Your task to perform on an android device: change notifications settings Image 0: 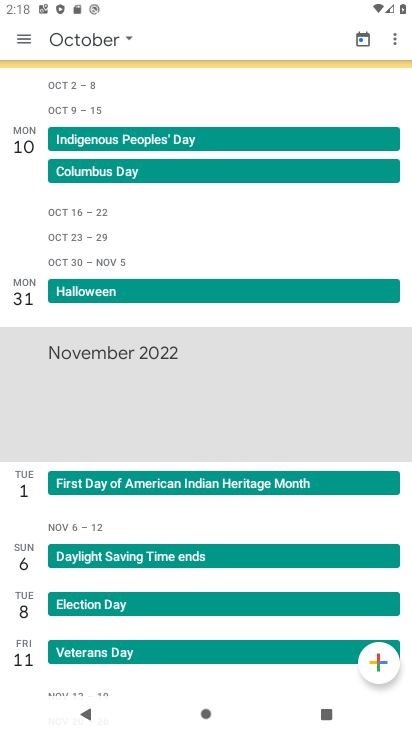
Step 0: press home button
Your task to perform on an android device: change notifications settings Image 1: 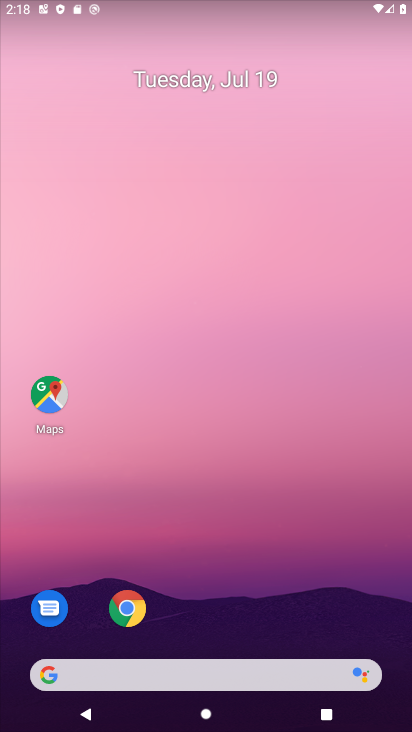
Step 1: click (321, 479)
Your task to perform on an android device: change notifications settings Image 2: 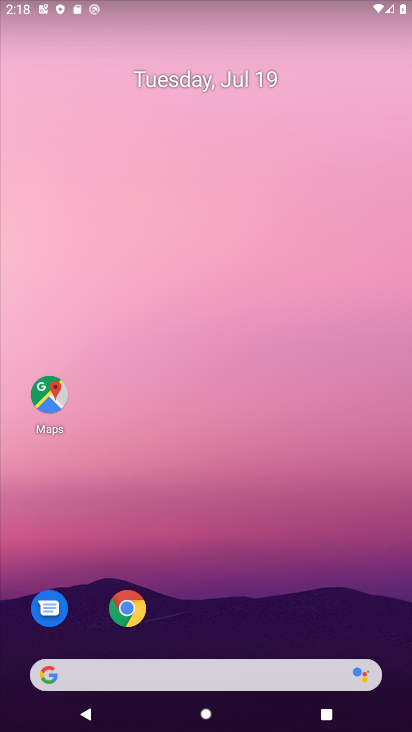
Step 2: drag from (308, 541) to (236, 228)
Your task to perform on an android device: change notifications settings Image 3: 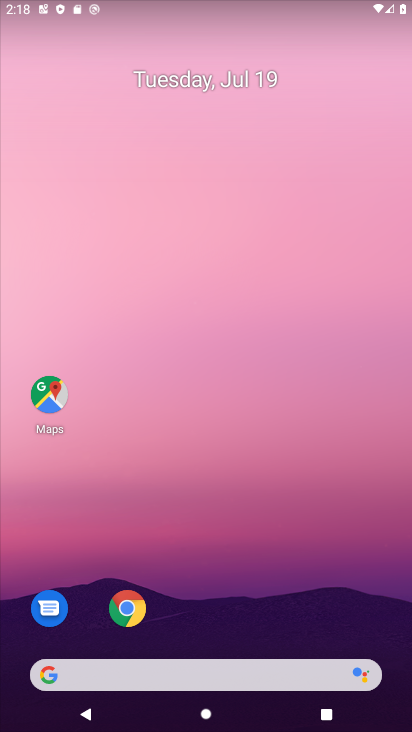
Step 3: drag from (269, 602) to (190, 239)
Your task to perform on an android device: change notifications settings Image 4: 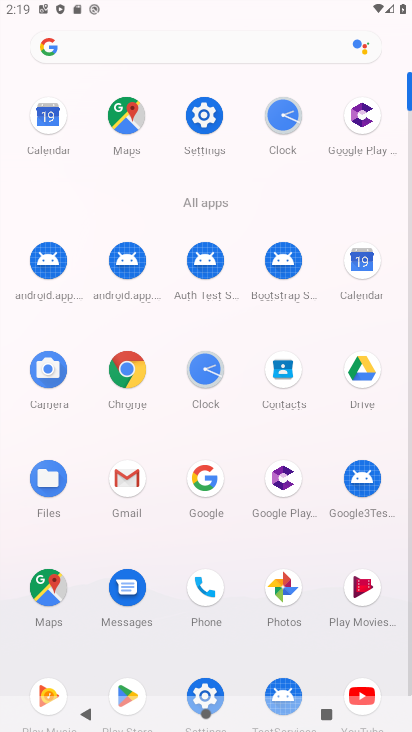
Step 4: click (207, 683)
Your task to perform on an android device: change notifications settings Image 5: 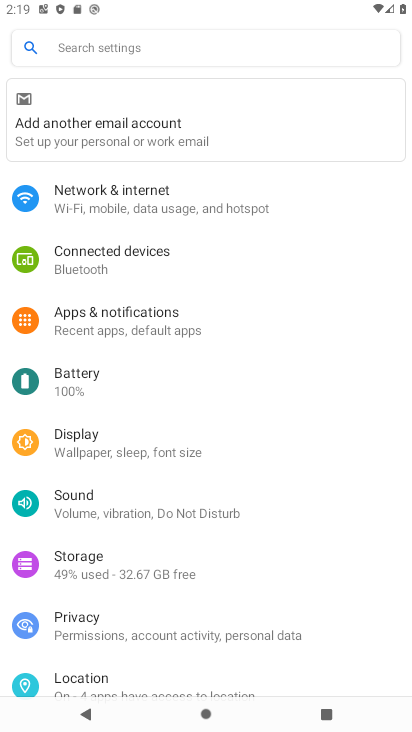
Step 5: click (189, 314)
Your task to perform on an android device: change notifications settings Image 6: 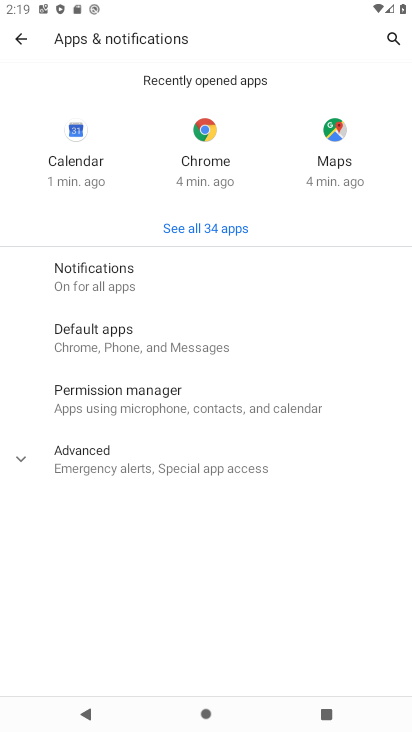
Step 6: click (108, 264)
Your task to perform on an android device: change notifications settings Image 7: 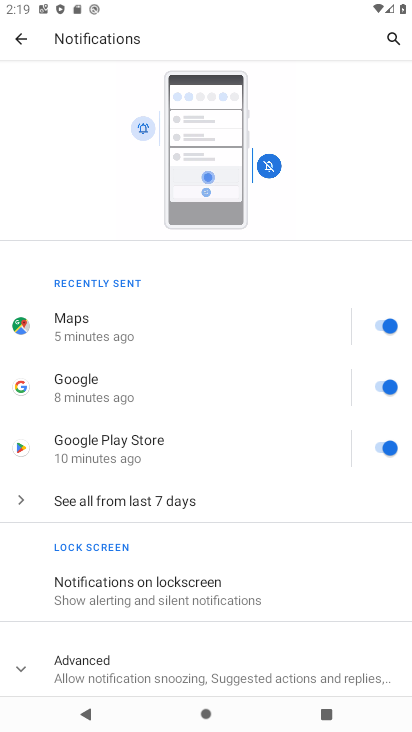
Step 7: click (387, 444)
Your task to perform on an android device: change notifications settings Image 8: 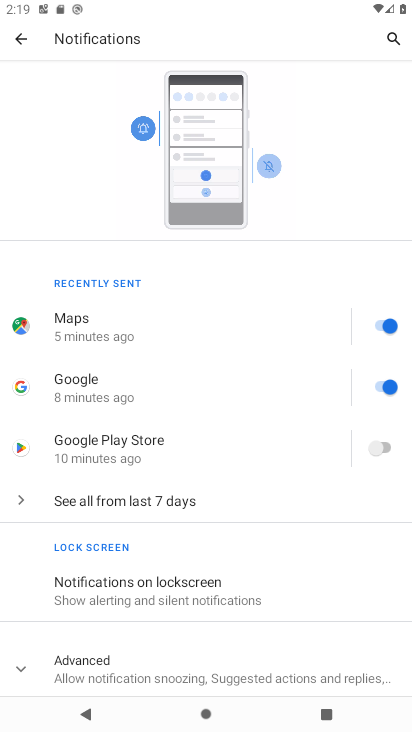
Step 8: click (133, 653)
Your task to perform on an android device: change notifications settings Image 9: 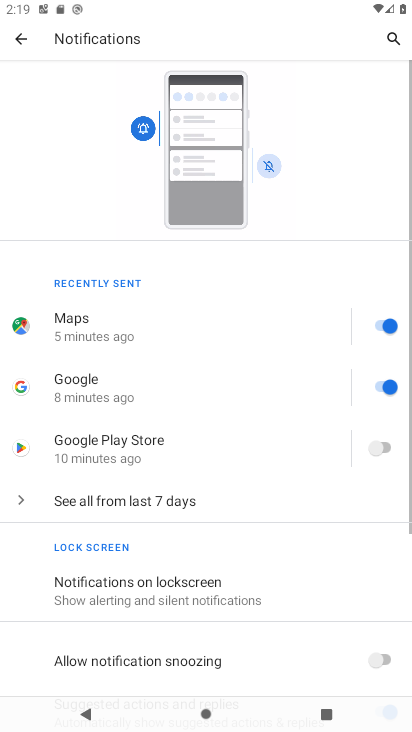
Step 9: drag from (237, 623) to (170, 178)
Your task to perform on an android device: change notifications settings Image 10: 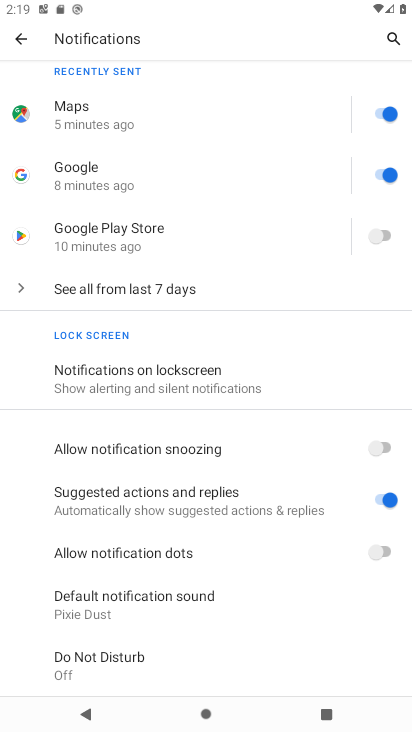
Step 10: click (386, 437)
Your task to perform on an android device: change notifications settings Image 11: 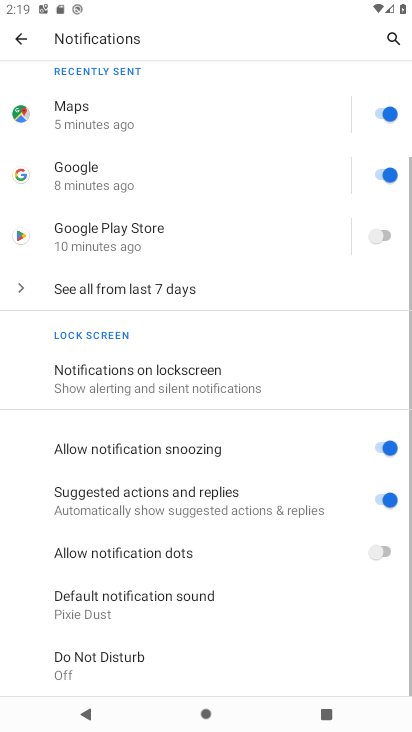
Step 11: click (388, 499)
Your task to perform on an android device: change notifications settings Image 12: 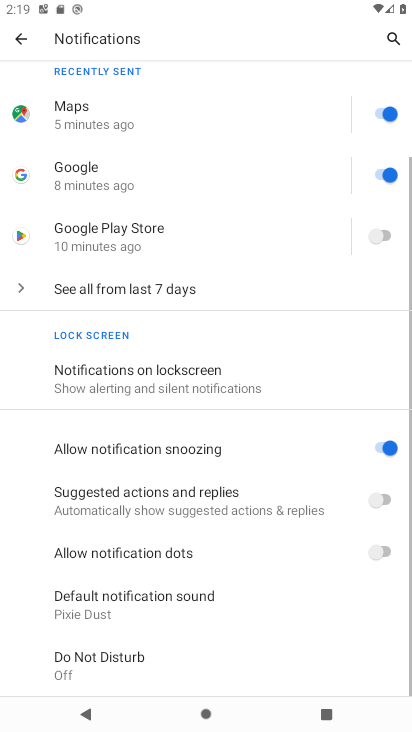
Step 12: task complete